Your task to perform on an android device: Go to Google Image 0: 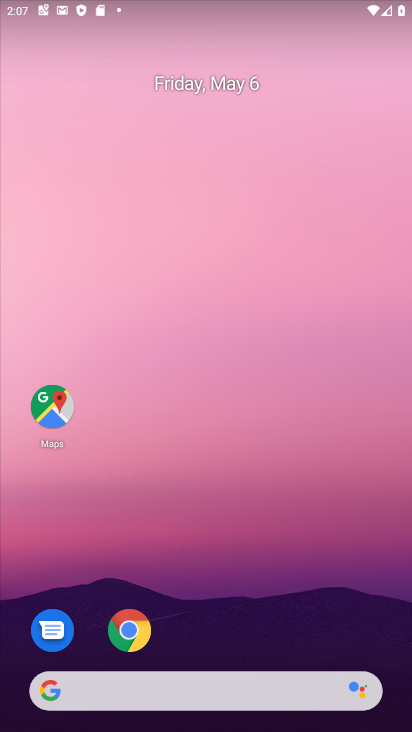
Step 0: drag from (200, 616) to (234, 205)
Your task to perform on an android device: Go to Google Image 1: 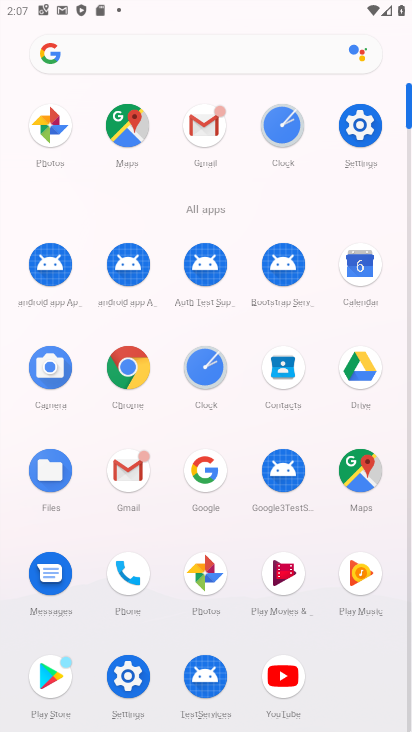
Step 1: click (219, 485)
Your task to perform on an android device: Go to Google Image 2: 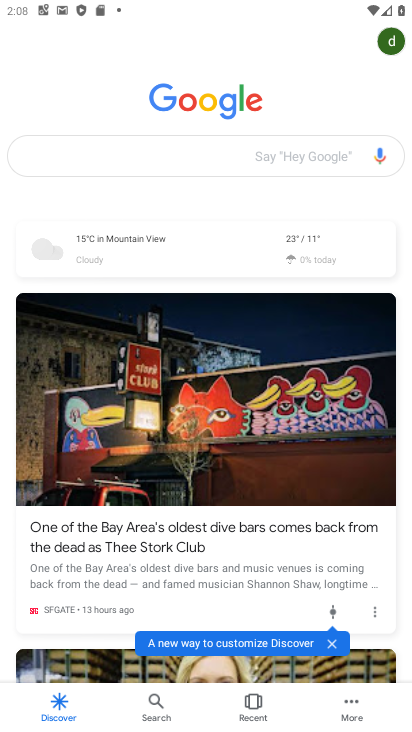
Step 2: task complete